Your task to perform on an android device: check the backup settings in the google photos Image 0: 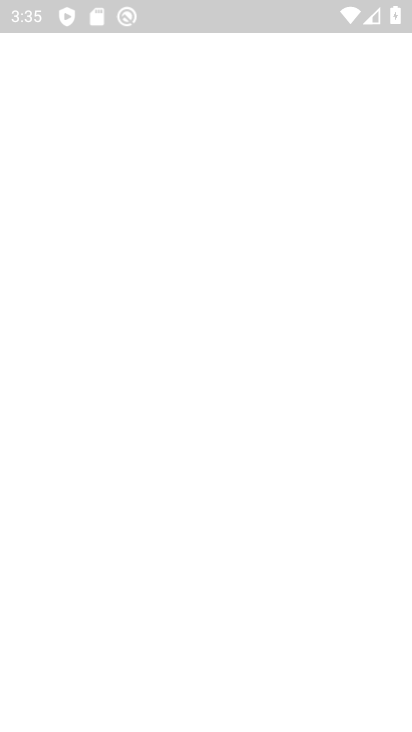
Step 0: drag from (405, 614) to (330, 42)
Your task to perform on an android device: check the backup settings in the google photos Image 1: 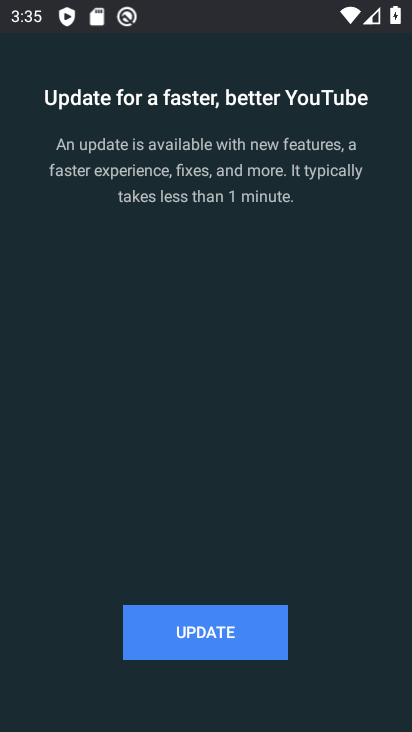
Step 1: press back button
Your task to perform on an android device: check the backup settings in the google photos Image 2: 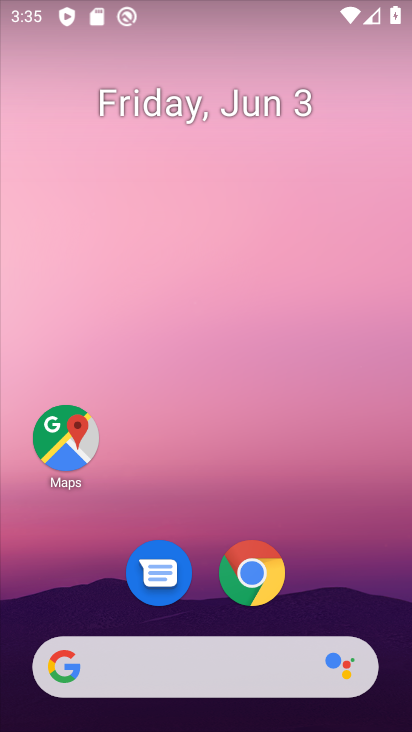
Step 2: drag from (392, 634) to (377, 117)
Your task to perform on an android device: check the backup settings in the google photos Image 3: 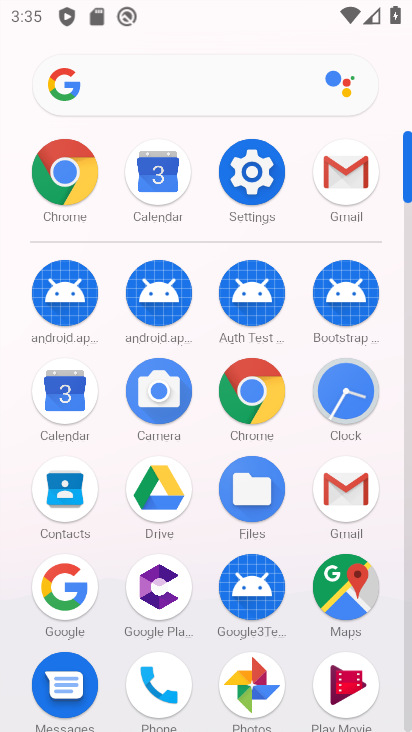
Step 3: click (256, 654)
Your task to perform on an android device: check the backup settings in the google photos Image 4: 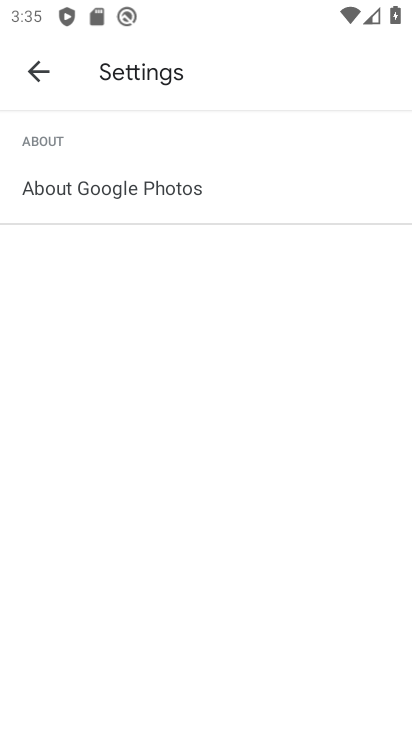
Step 4: click (36, 76)
Your task to perform on an android device: check the backup settings in the google photos Image 5: 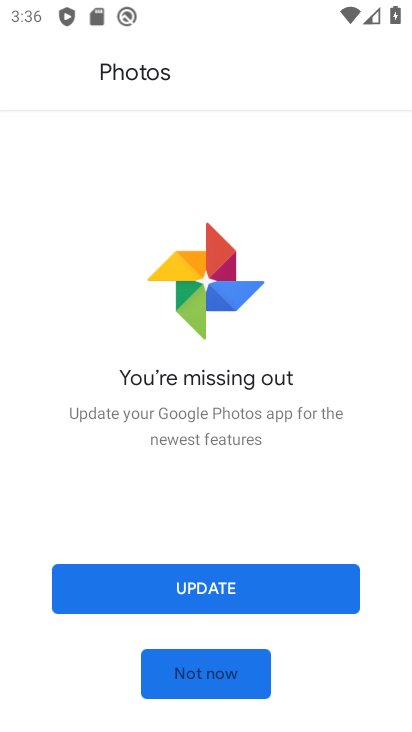
Step 5: click (222, 579)
Your task to perform on an android device: check the backup settings in the google photos Image 6: 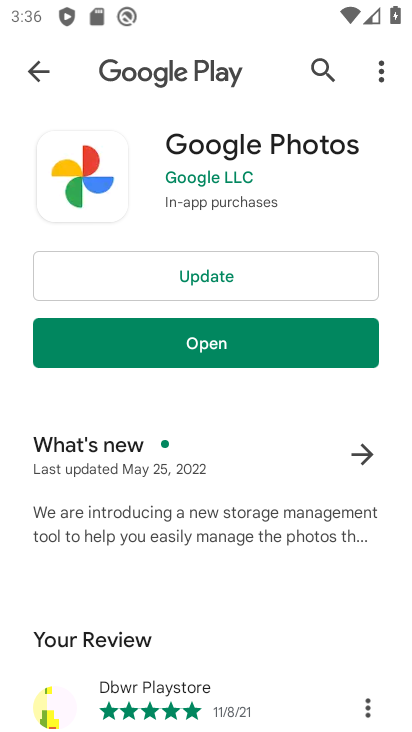
Step 6: click (224, 273)
Your task to perform on an android device: check the backup settings in the google photos Image 7: 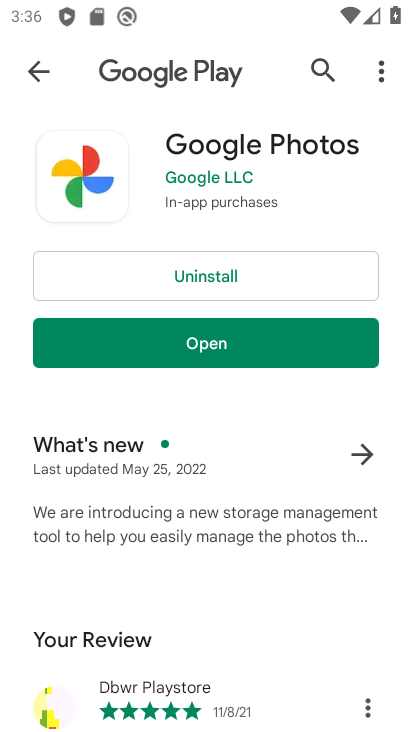
Step 7: click (186, 343)
Your task to perform on an android device: check the backup settings in the google photos Image 8: 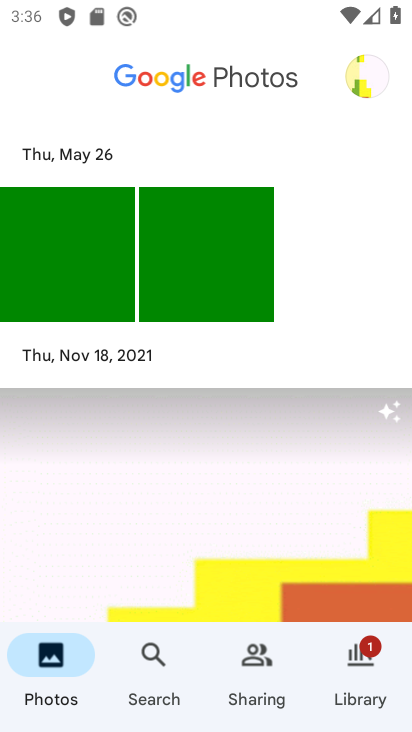
Step 8: click (66, 632)
Your task to perform on an android device: check the backup settings in the google photos Image 9: 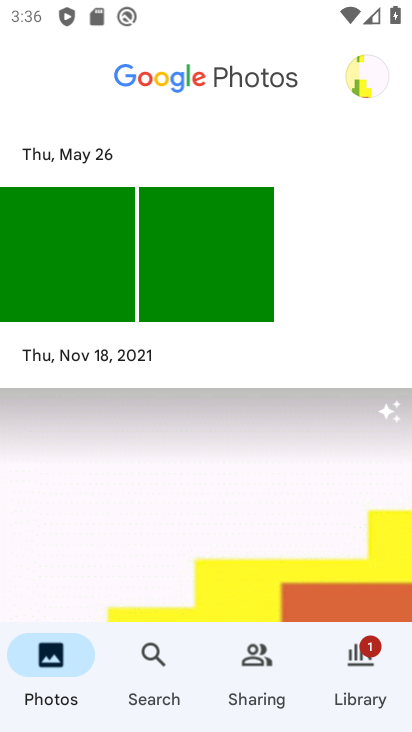
Step 9: task complete